Your task to perform on an android device: find snoozed emails in the gmail app Image 0: 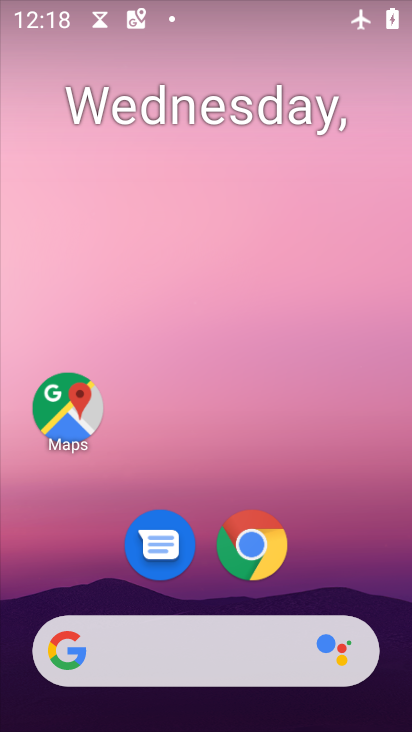
Step 0: drag from (357, 558) to (386, 2)
Your task to perform on an android device: find snoozed emails in the gmail app Image 1: 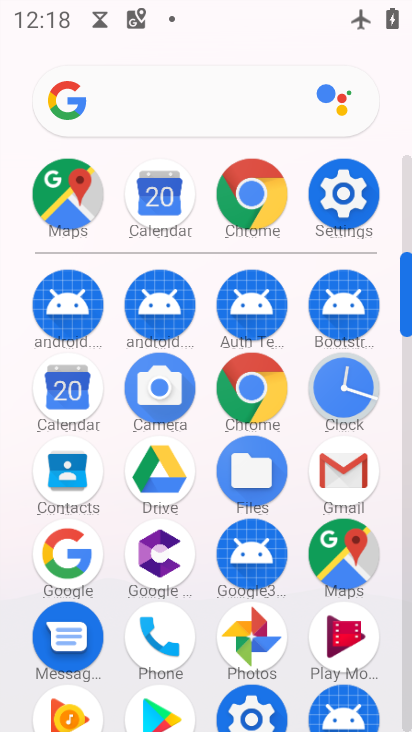
Step 1: click (336, 495)
Your task to perform on an android device: find snoozed emails in the gmail app Image 2: 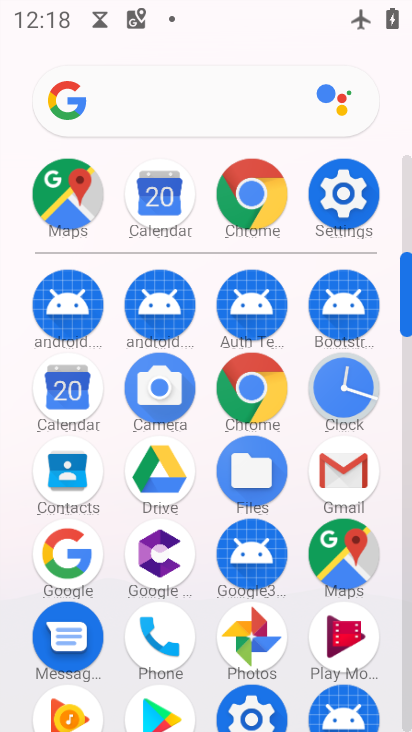
Step 2: click (337, 463)
Your task to perform on an android device: find snoozed emails in the gmail app Image 3: 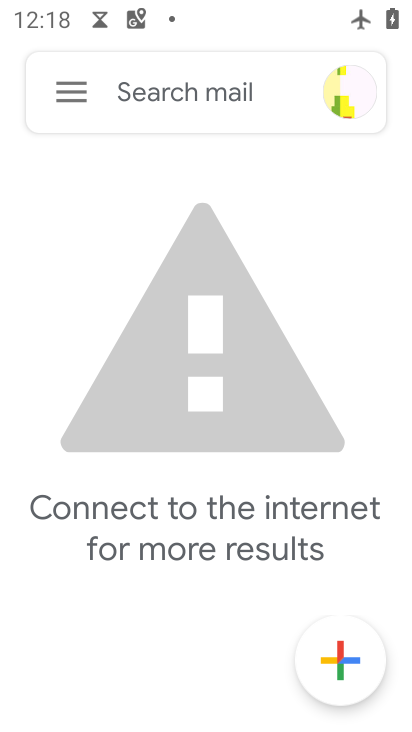
Step 3: task complete